Your task to perform on an android device: Open Android settings Image 0: 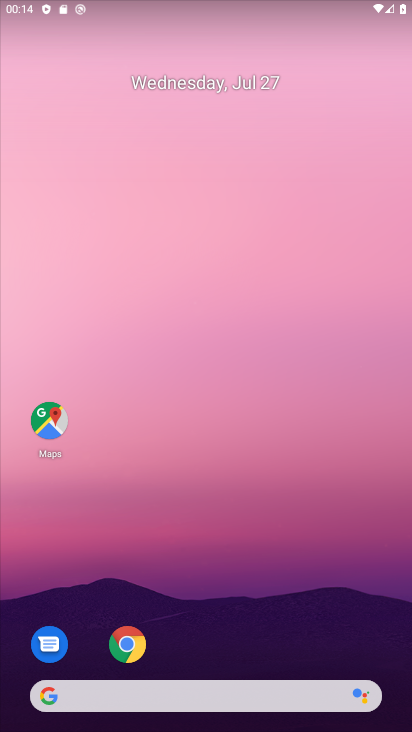
Step 0: drag from (310, 721) to (261, 239)
Your task to perform on an android device: Open Android settings Image 1: 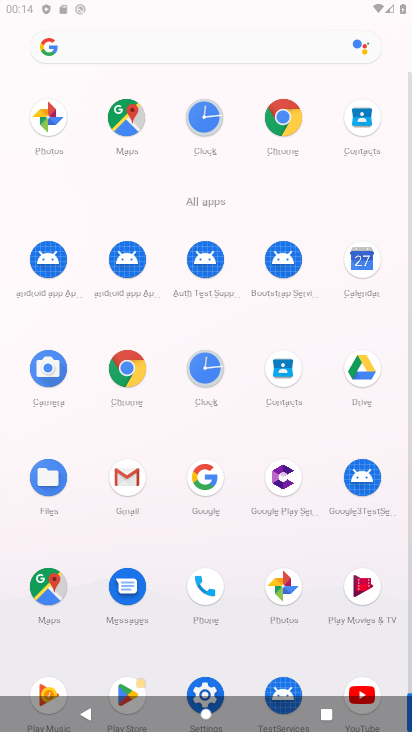
Step 1: drag from (183, 632) to (176, 334)
Your task to perform on an android device: Open Android settings Image 2: 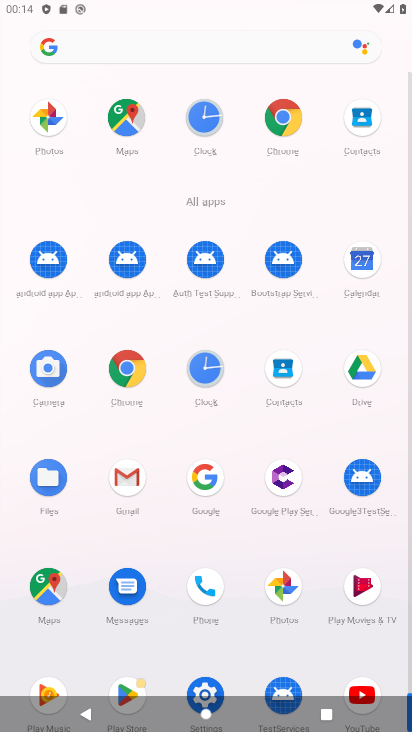
Step 2: drag from (208, 599) to (205, 238)
Your task to perform on an android device: Open Android settings Image 3: 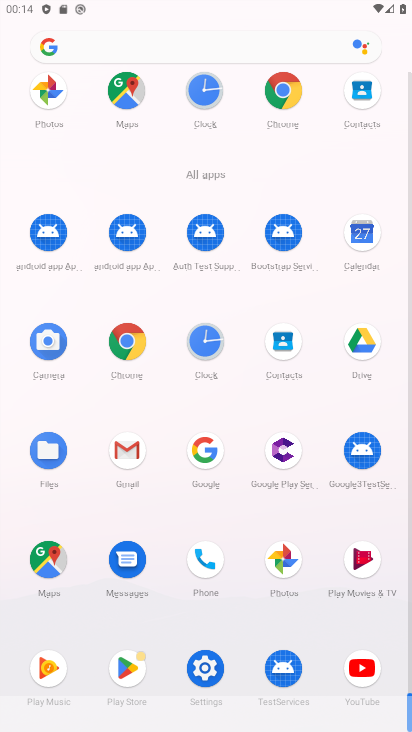
Step 3: click (203, 665)
Your task to perform on an android device: Open Android settings Image 4: 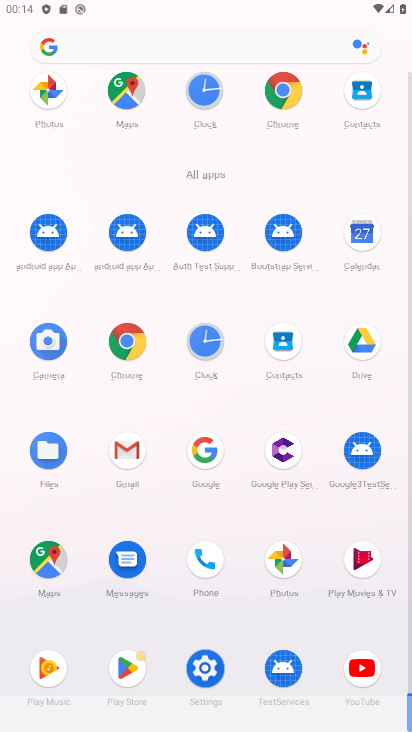
Step 4: drag from (203, 671) to (229, 644)
Your task to perform on an android device: Open Android settings Image 5: 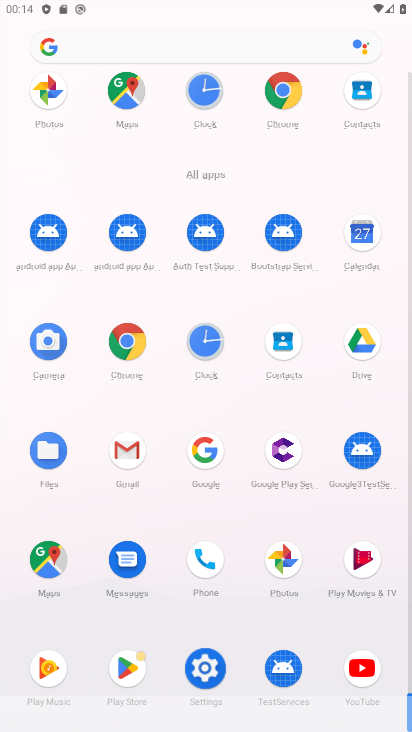
Step 5: click (213, 661)
Your task to perform on an android device: Open Android settings Image 6: 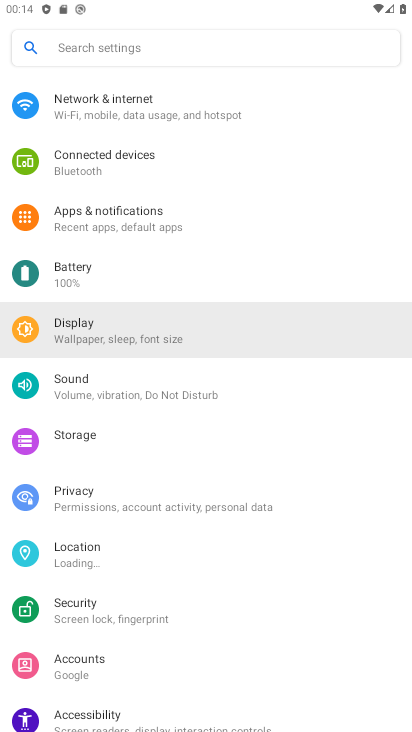
Step 6: click (209, 662)
Your task to perform on an android device: Open Android settings Image 7: 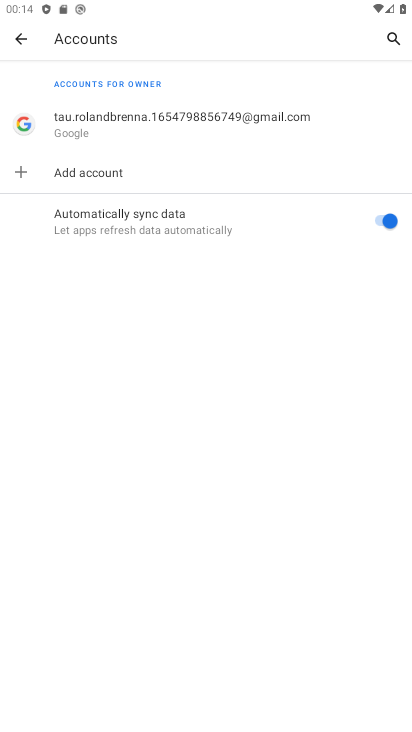
Step 7: drag from (92, 590) to (110, 207)
Your task to perform on an android device: Open Android settings Image 8: 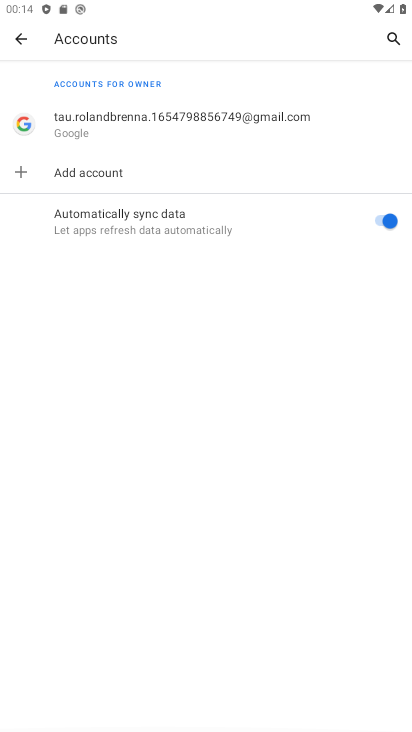
Step 8: click (30, 33)
Your task to perform on an android device: Open Android settings Image 9: 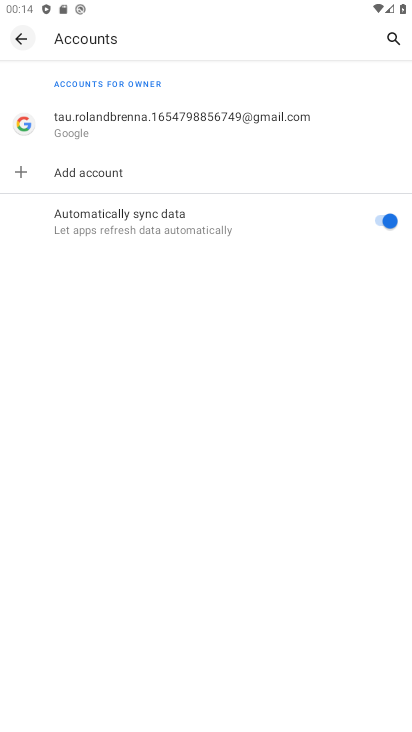
Step 9: click (24, 38)
Your task to perform on an android device: Open Android settings Image 10: 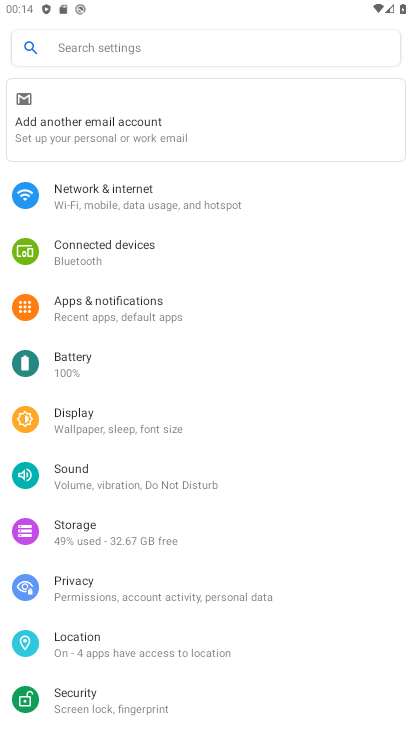
Step 10: drag from (175, 561) to (109, 237)
Your task to perform on an android device: Open Android settings Image 11: 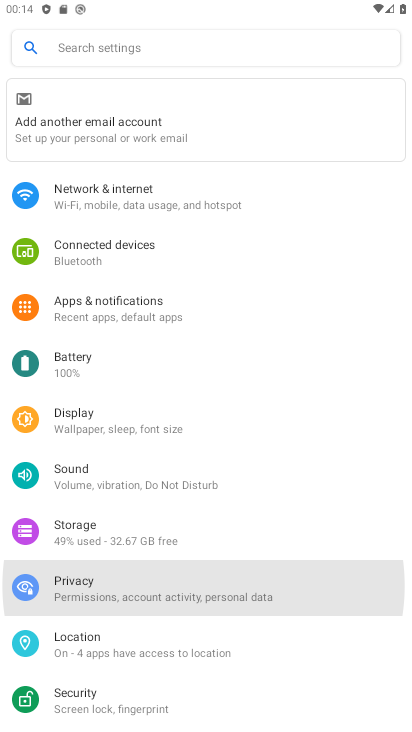
Step 11: drag from (132, 560) to (95, 169)
Your task to perform on an android device: Open Android settings Image 12: 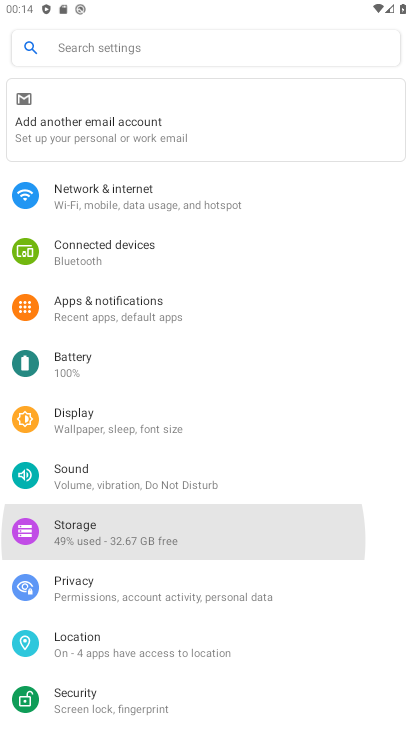
Step 12: drag from (79, 510) to (91, 259)
Your task to perform on an android device: Open Android settings Image 13: 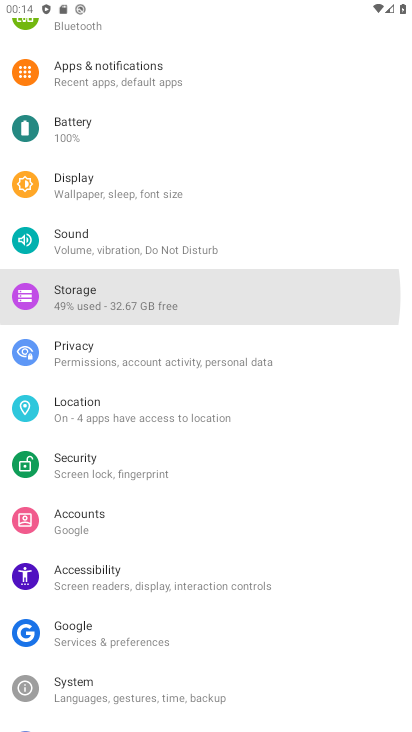
Step 13: drag from (132, 574) to (146, 292)
Your task to perform on an android device: Open Android settings Image 14: 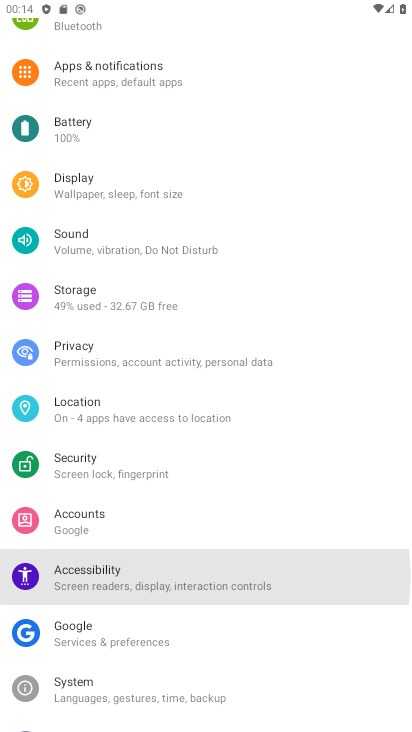
Step 14: drag from (216, 645) to (207, 311)
Your task to perform on an android device: Open Android settings Image 15: 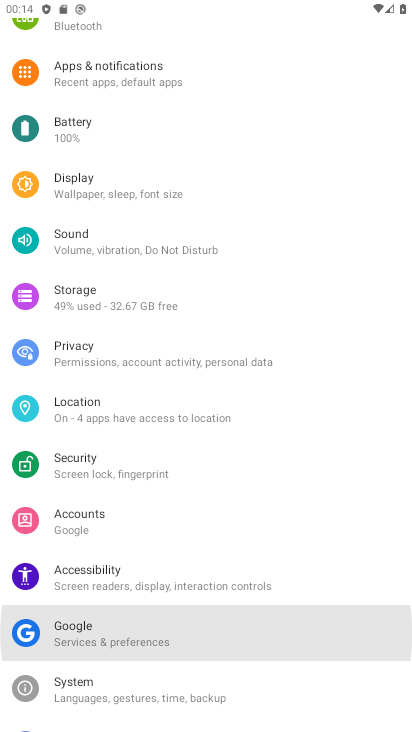
Step 15: drag from (164, 594) to (164, 295)
Your task to perform on an android device: Open Android settings Image 16: 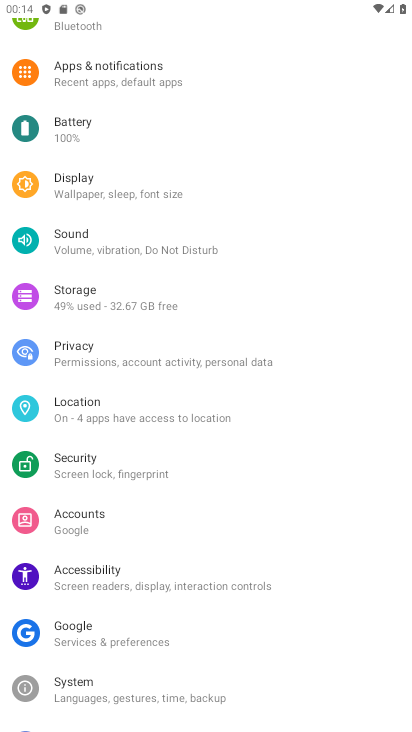
Step 16: drag from (98, 660) to (104, 392)
Your task to perform on an android device: Open Android settings Image 17: 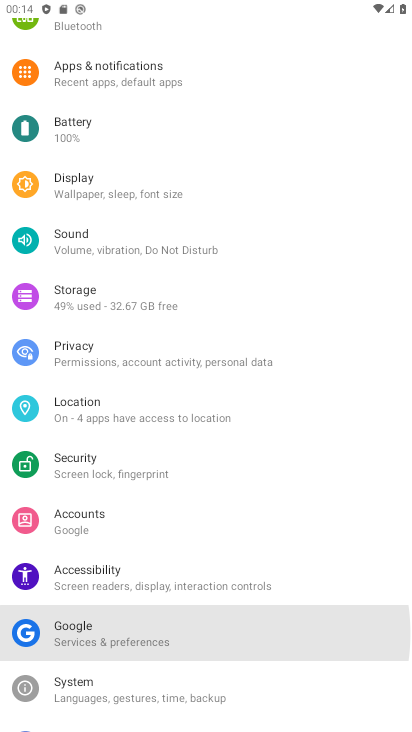
Step 17: drag from (109, 634) to (105, 408)
Your task to perform on an android device: Open Android settings Image 18: 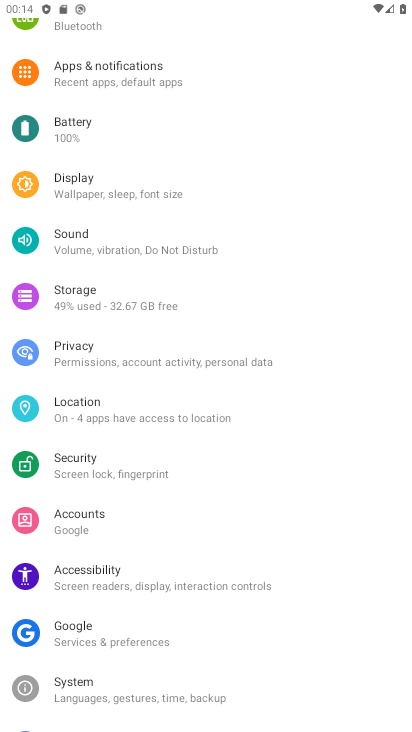
Step 18: click (82, 686)
Your task to perform on an android device: Open Android settings Image 19: 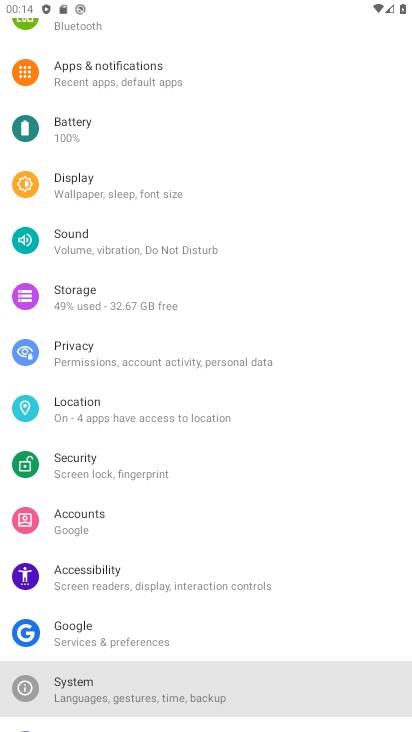
Step 19: click (81, 685)
Your task to perform on an android device: Open Android settings Image 20: 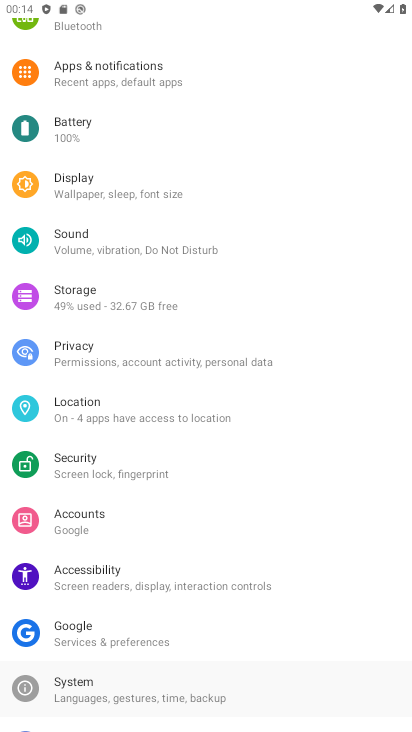
Step 20: click (81, 684)
Your task to perform on an android device: Open Android settings Image 21: 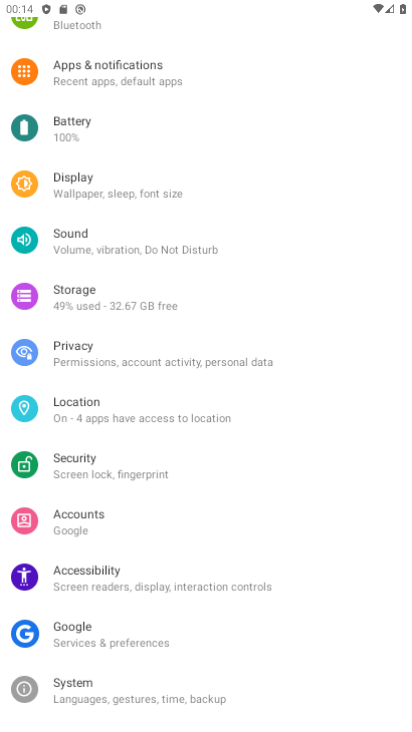
Step 21: click (85, 682)
Your task to perform on an android device: Open Android settings Image 22: 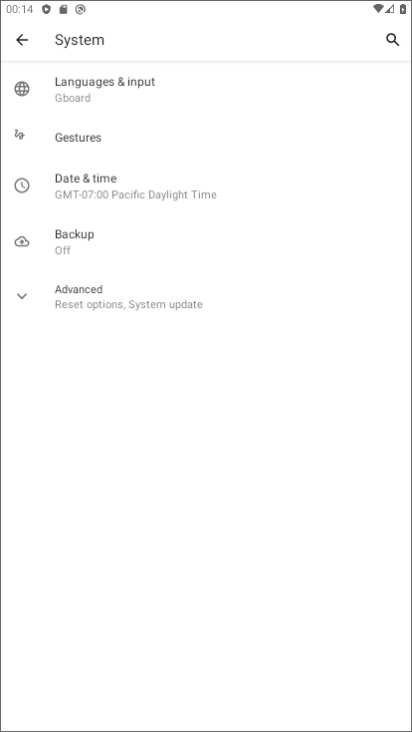
Step 22: click (87, 684)
Your task to perform on an android device: Open Android settings Image 23: 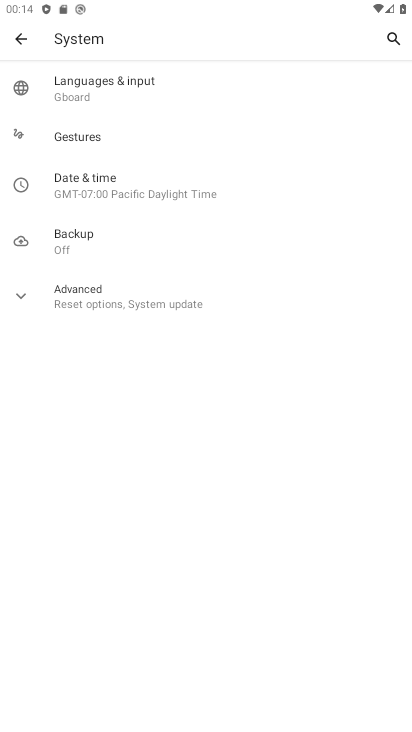
Step 23: click (88, 685)
Your task to perform on an android device: Open Android settings Image 24: 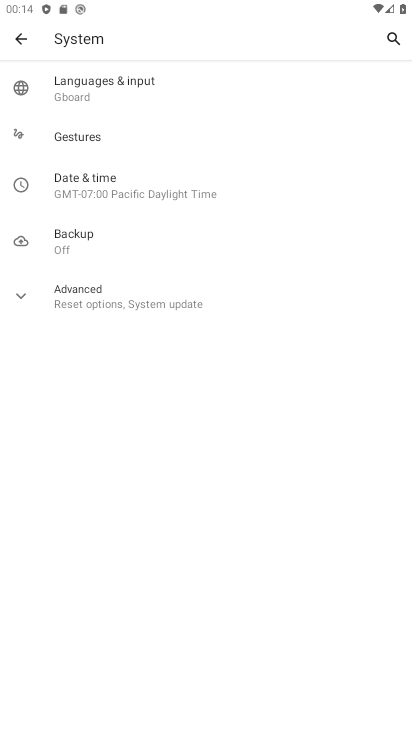
Step 24: click (87, 688)
Your task to perform on an android device: Open Android settings Image 25: 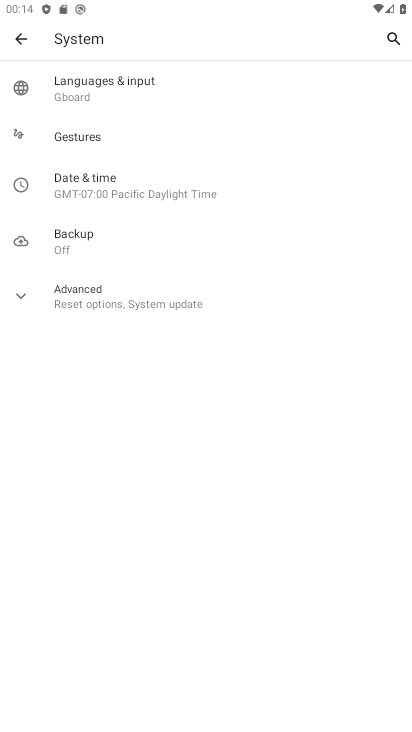
Step 25: click (87, 688)
Your task to perform on an android device: Open Android settings Image 26: 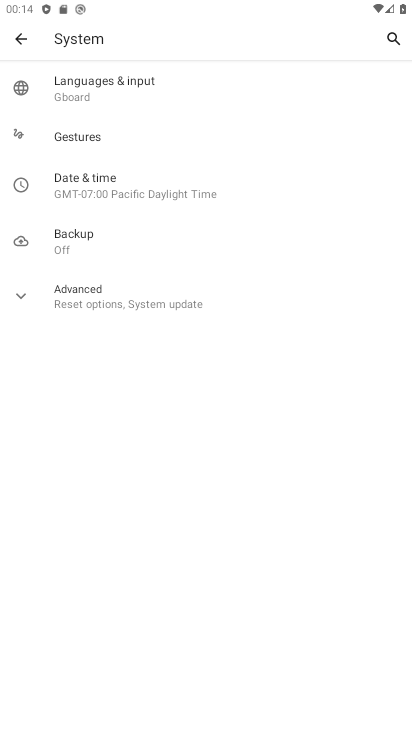
Step 26: click (82, 298)
Your task to perform on an android device: Open Android settings Image 27: 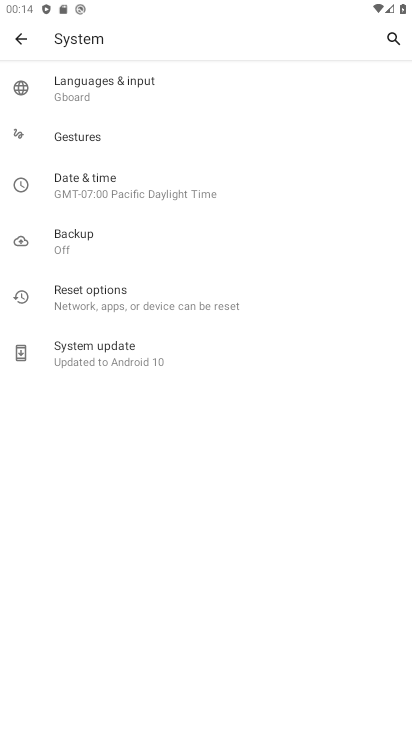
Step 27: task complete